Your task to perform on an android device: allow notifications from all sites in the chrome app Image 0: 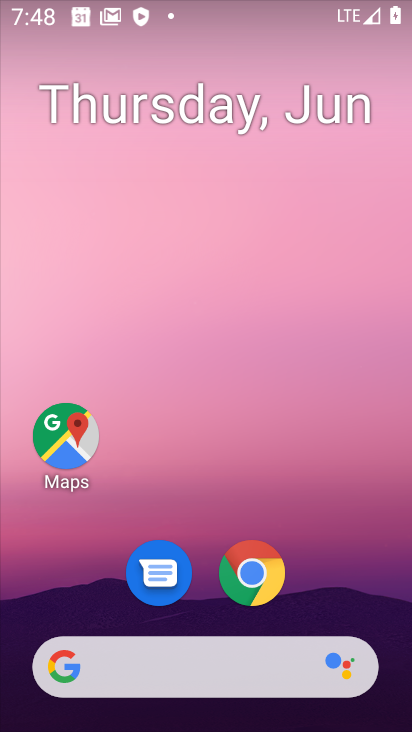
Step 0: drag from (315, 585) to (339, 174)
Your task to perform on an android device: allow notifications from all sites in the chrome app Image 1: 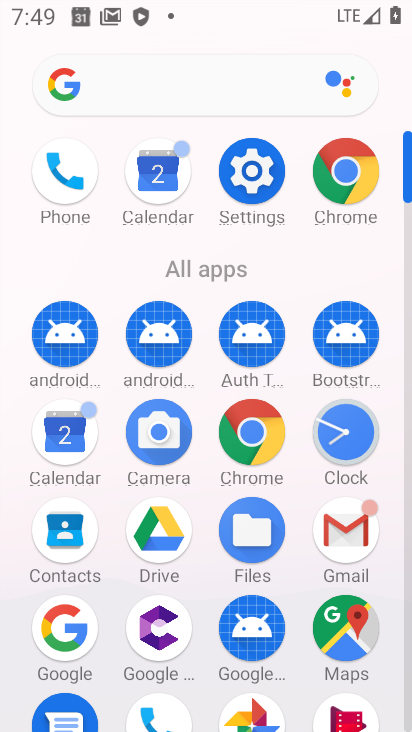
Step 1: click (235, 426)
Your task to perform on an android device: allow notifications from all sites in the chrome app Image 2: 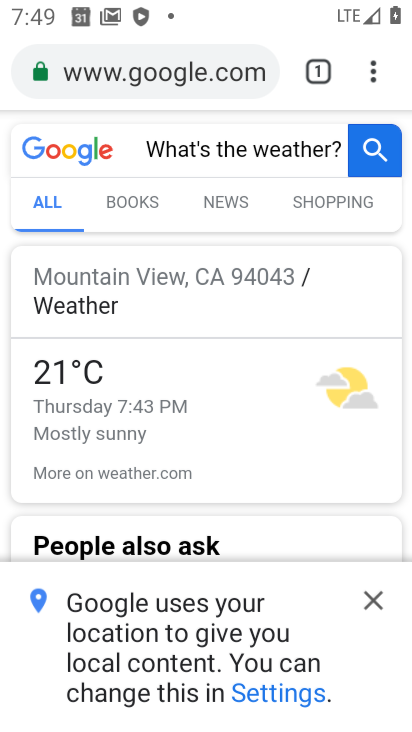
Step 2: click (363, 64)
Your task to perform on an android device: allow notifications from all sites in the chrome app Image 3: 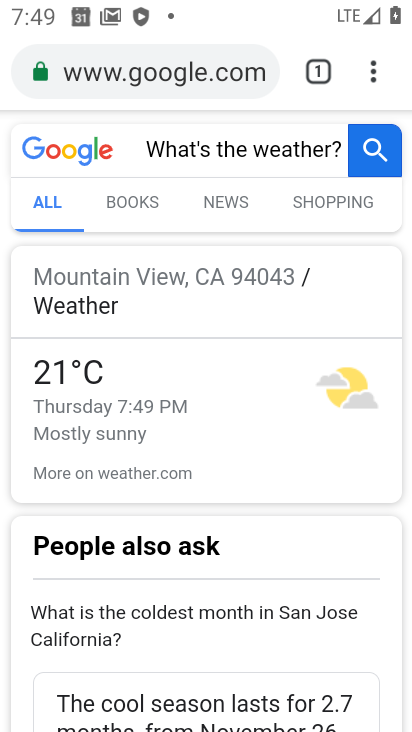
Step 3: click (376, 72)
Your task to perform on an android device: allow notifications from all sites in the chrome app Image 4: 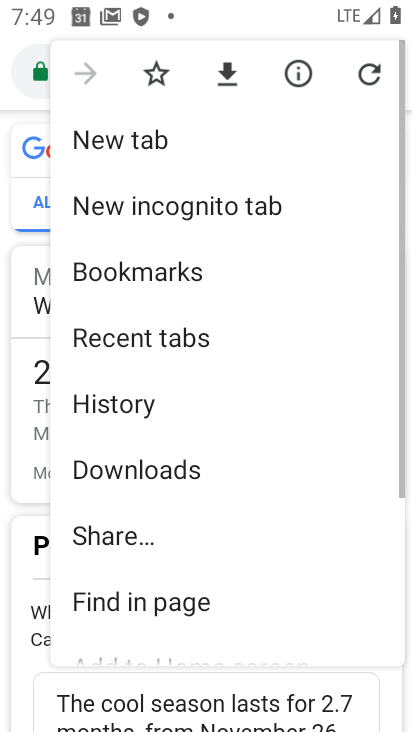
Step 4: drag from (271, 557) to (283, 275)
Your task to perform on an android device: allow notifications from all sites in the chrome app Image 5: 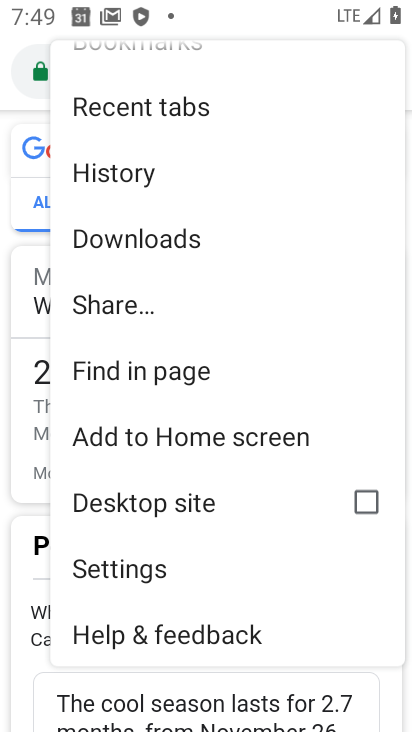
Step 5: click (164, 569)
Your task to perform on an android device: allow notifications from all sites in the chrome app Image 6: 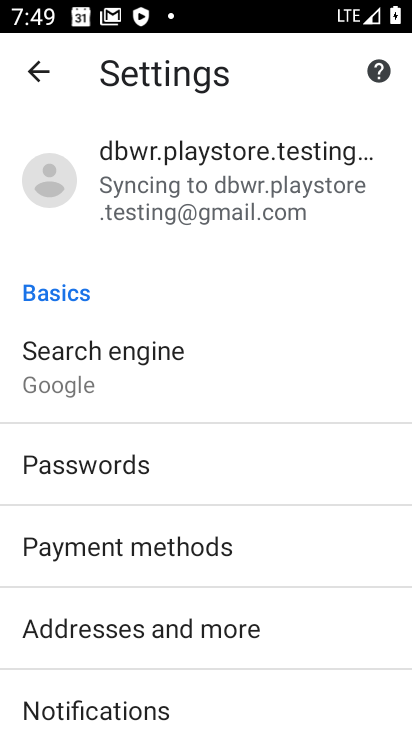
Step 6: drag from (205, 609) to (241, 274)
Your task to perform on an android device: allow notifications from all sites in the chrome app Image 7: 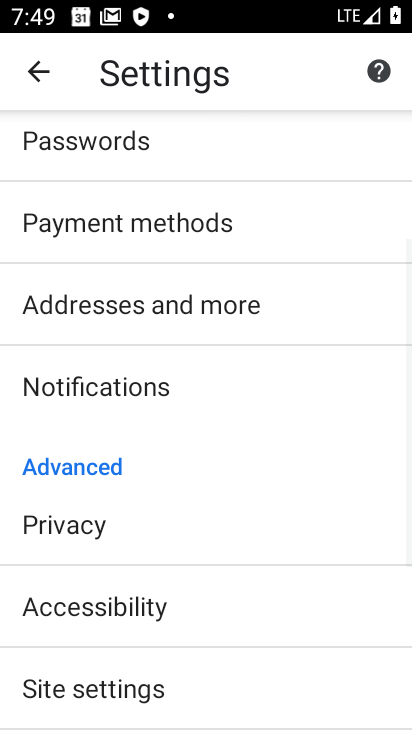
Step 7: drag from (175, 576) to (187, 424)
Your task to perform on an android device: allow notifications from all sites in the chrome app Image 8: 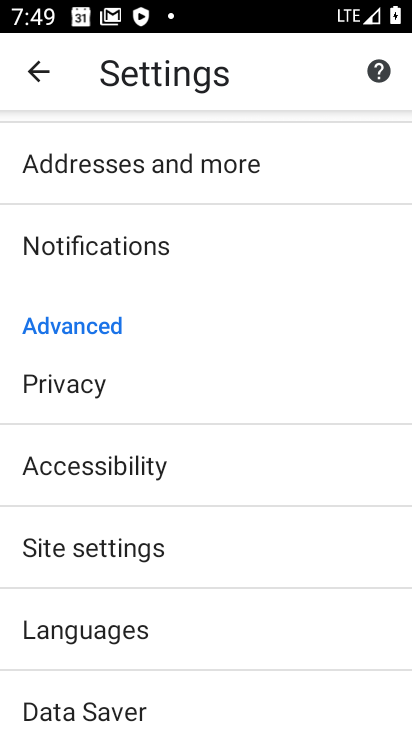
Step 8: click (191, 546)
Your task to perform on an android device: allow notifications from all sites in the chrome app Image 9: 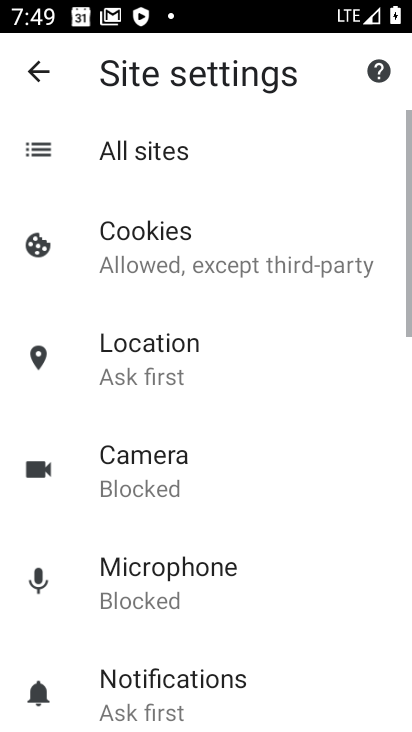
Step 9: click (218, 233)
Your task to perform on an android device: allow notifications from all sites in the chrome app Image 10: 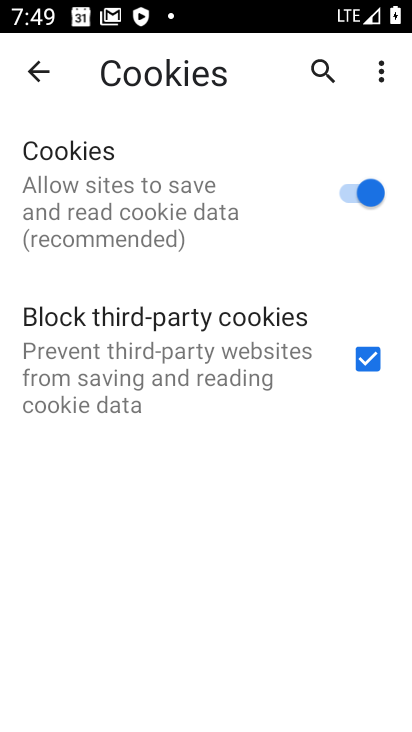
Step 10: click (36, 74)
Your task to perform on an android device: allow notifications from all sites in the chrome app Image 11: 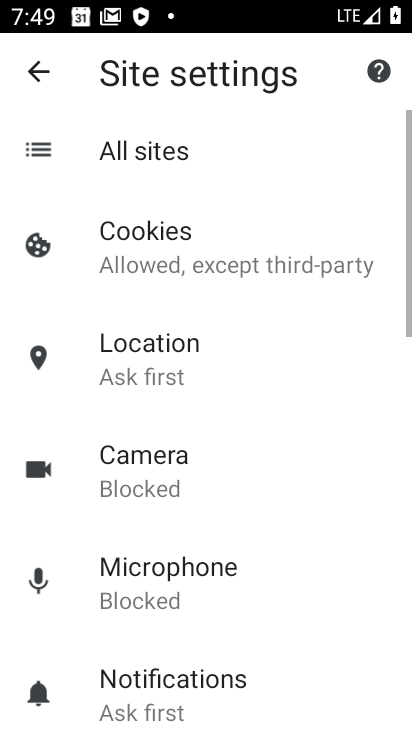
Step 11: click (151, 375)
Your task to perform on an android device: allow notifications from all sites in the chrome app Image 12: 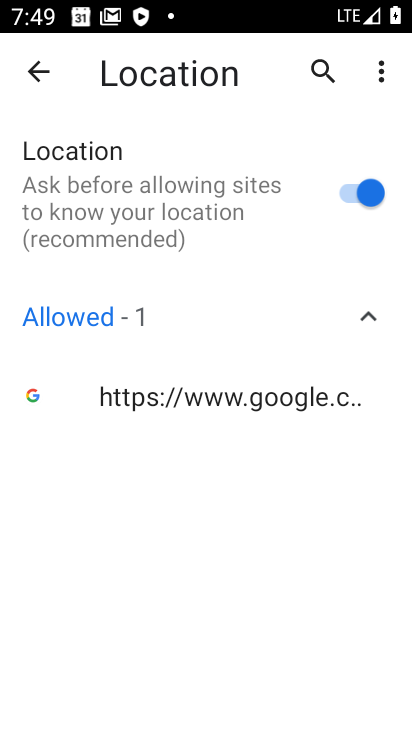
Step 12: click (53, 70)
Your task to perform on an android device: allow notifications from all sites in the chrome app Image 13: 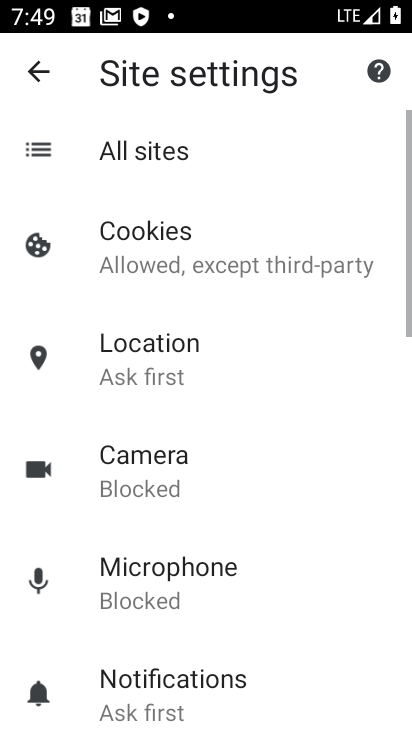
Step 13: click (175, 551)
Your task to perform on an android device: allow notifications from all sites in the chrome app Image 14: 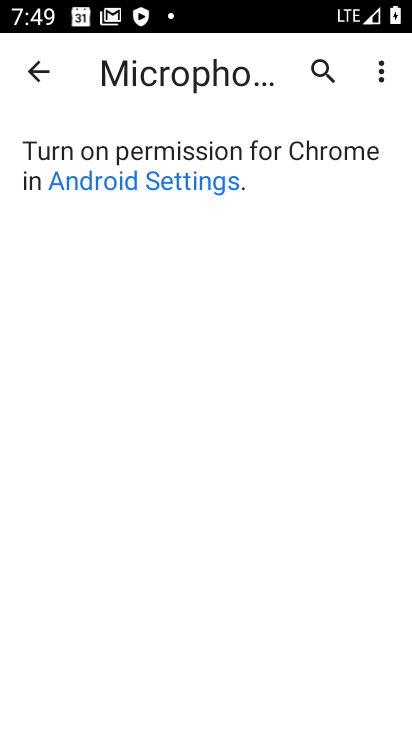
Step 14: click (22, 64)
Your task to perform on an android device: allow notifications from all sites in the chrome app Image 15: 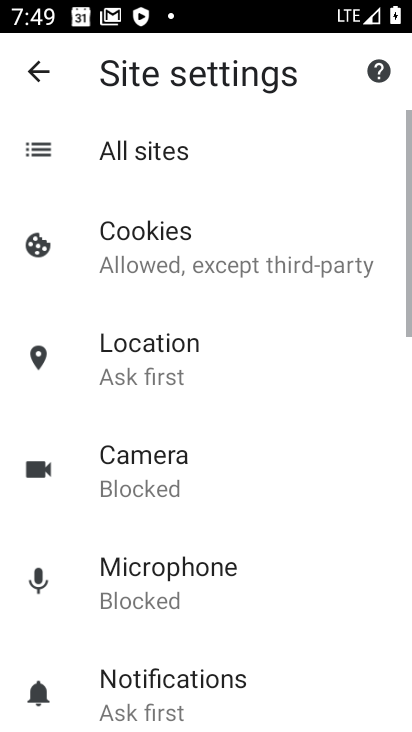
Step 15: task complete